Your task to perform on an android device: Open the map Image 0: 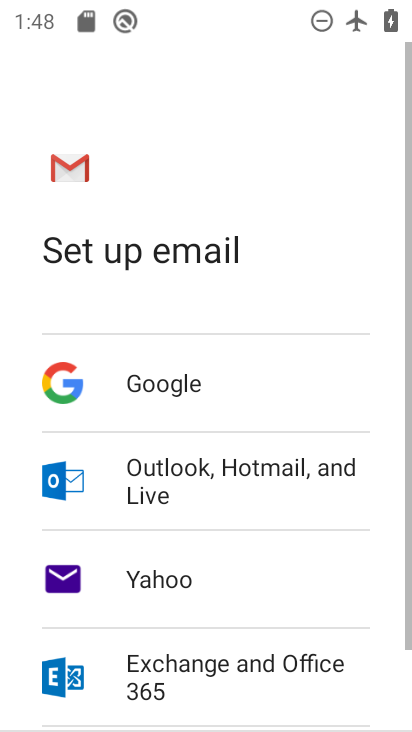
Step 0: press home button
Your task to perform on an android device: Open the map Image 1: 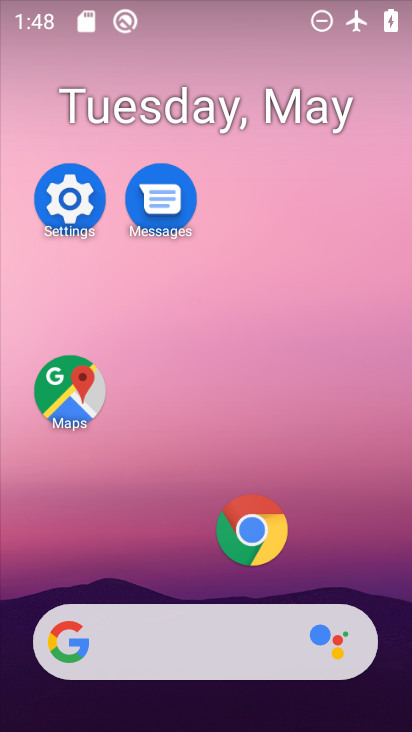
Step 1: drag from (161, 520) to (303, 6)
Your task to perform on an android device: Open the map Image 2: 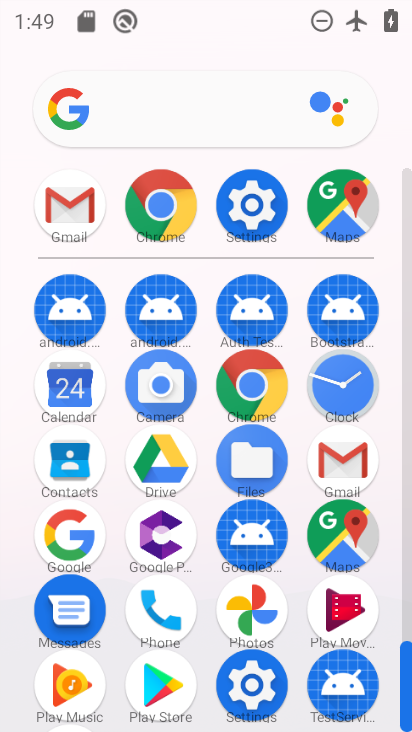
Step 2: click (349, 546)
Your task to perform on an android device: Open the map Image 3: 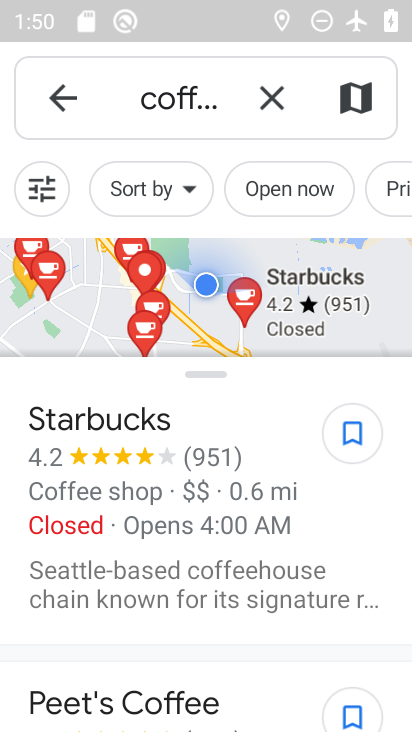
Step 3: task complete